Your task to perform on an android device: show emergency info Image 0: 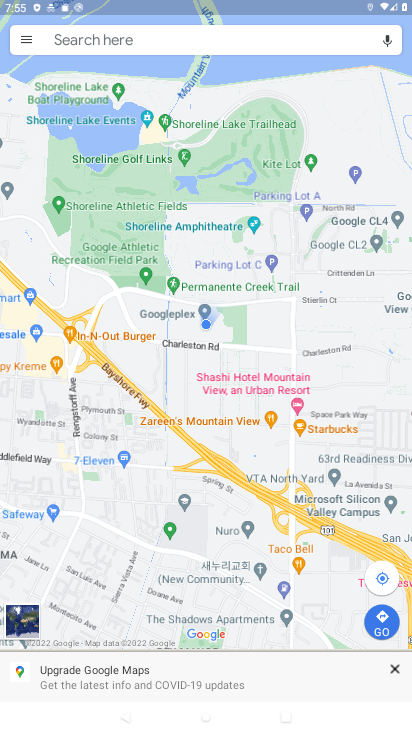
Step 0: press back button
Your task to perform on an android device: show emergency info Image 1: 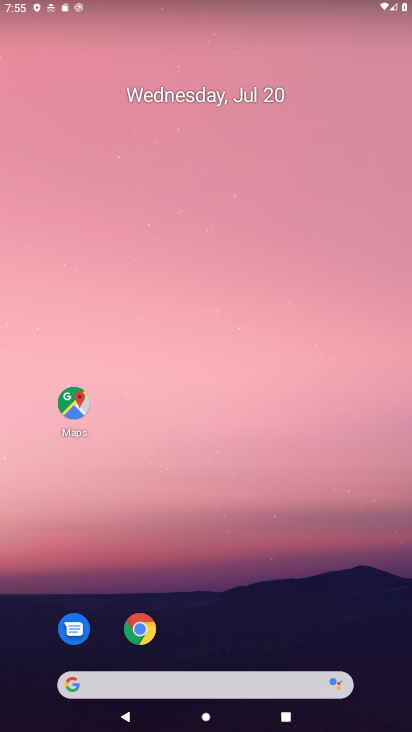
Step 1: drag from (243, 524) to (184, 72)
Your task to perform on an android device: show emergency info Image 2: 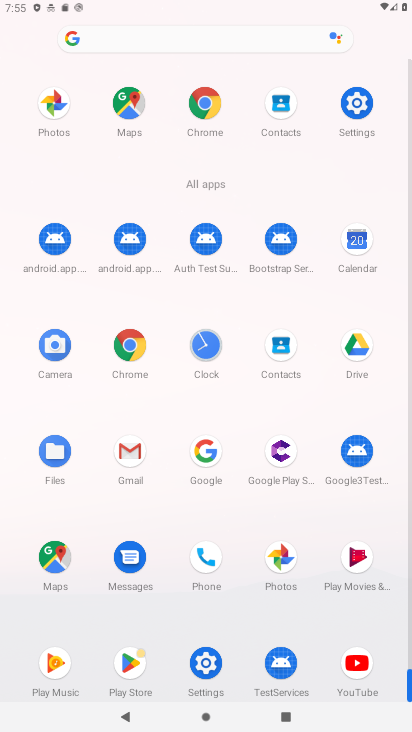
Step 2: click (362, 109)
Your task to perform on an android device: show emergency info Image 3: 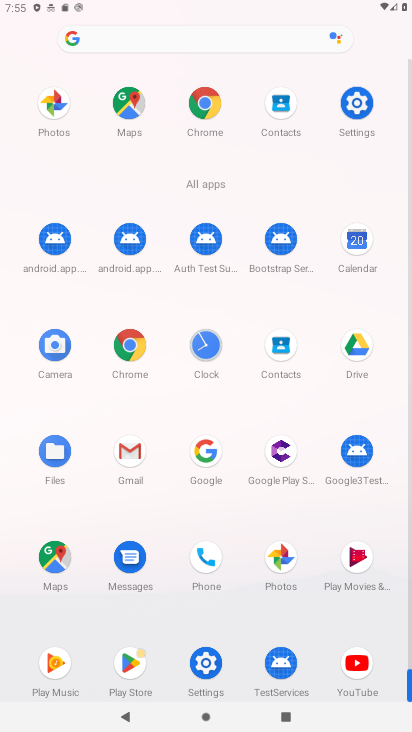
Step 3: click (364, 117)
Your task to perform on an android device: show emergency info Image 4: 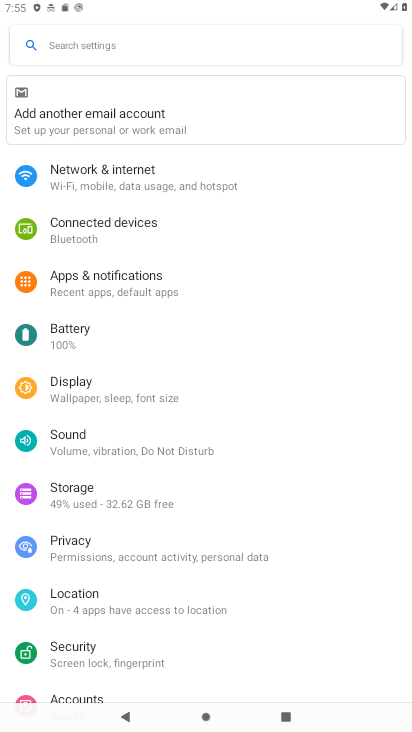
Step 4: drag from (143, 541) to (173, 325)
Your task to perform on an android device: show emergency info Image 5: 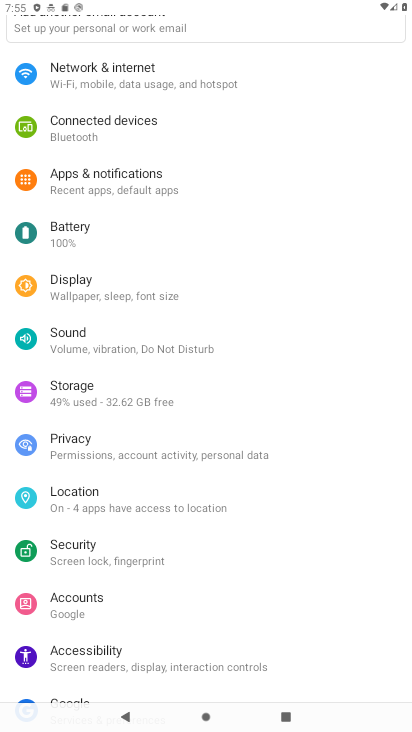
Step 5: drag from (174, 649) to (194, 213)
Your task to perform on an android device: show emergency info Image 6: 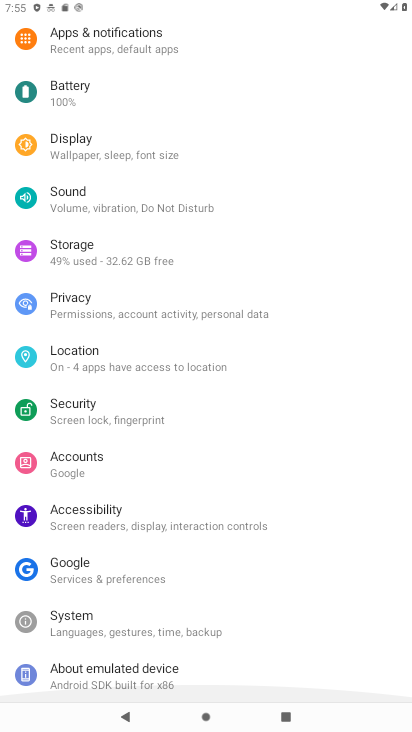
Step 6: drag from (149, 443) to (186, 20)
Your task to perform on an android device: show emergency info Image 7: 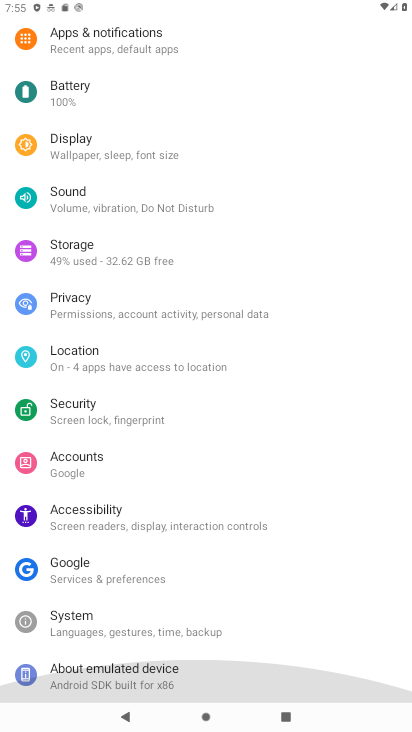
Step 7: drag from (192, 436) to (192, 138)
Your task to perform on an android device: show emergency info Image 8: 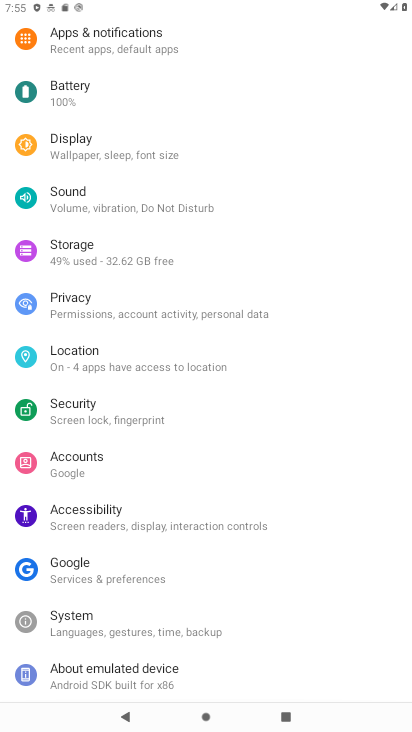
Step 8: click (77, 670)
Your task to perform on an android device: show emergency info Image 9: 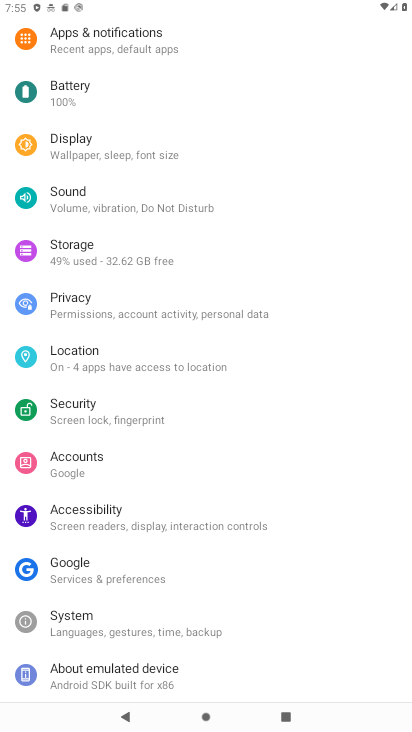
Step 9: click (77, 670)
Your task to perform on an android device: show emergency info Image 10: 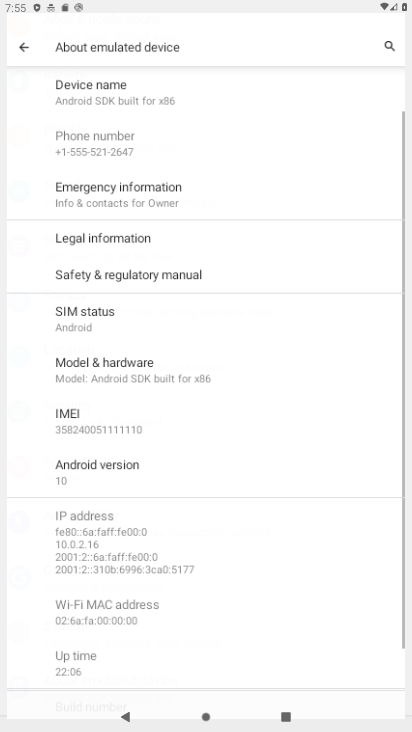
Step 10: click (81, 670)
Your task to perform on an android device: show emergency info Image 11: 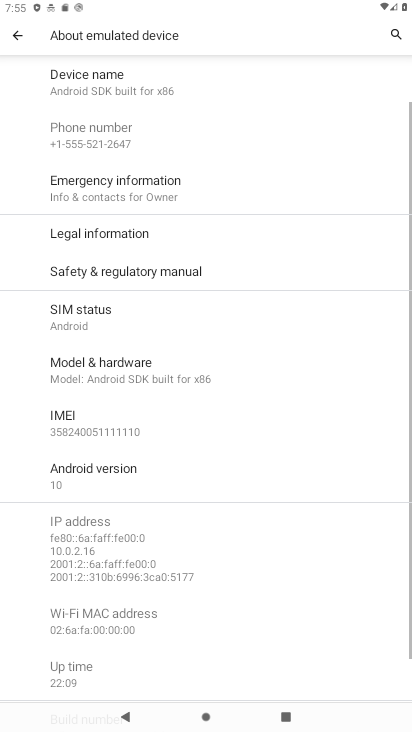
Step 11: click (90, 194)
Your task to perform on an android device: show emergency info Image 12: 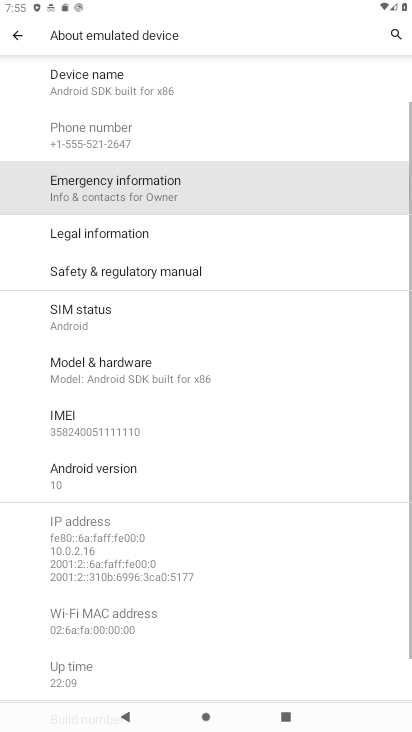
Step 12: click (95, 192)
Your task to perform on an android device: show emergency info Image 13: 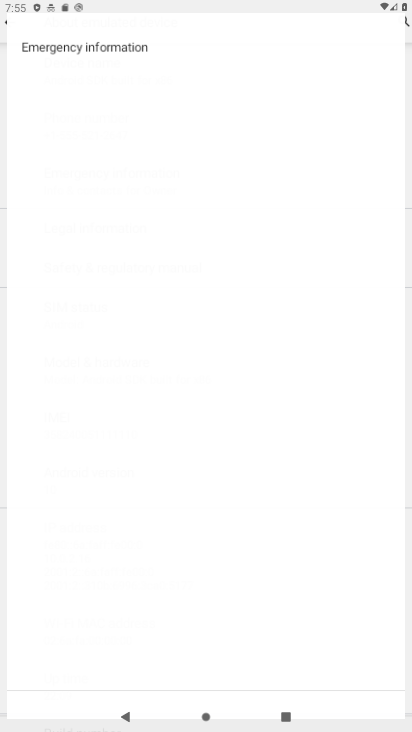
Step 13: click (96, 193)
Your task to perform on an android device: show emergency info Image 14: 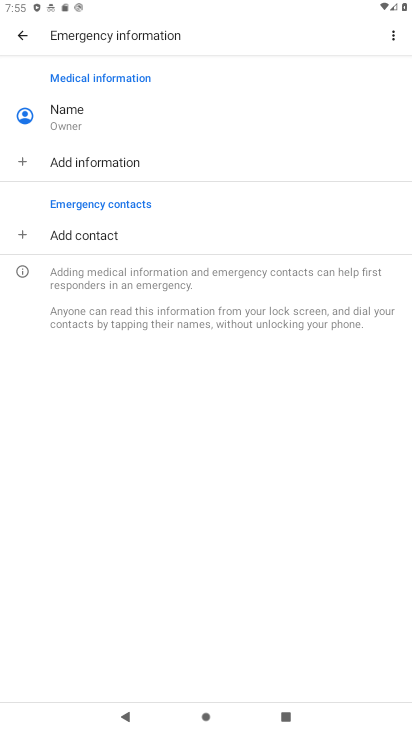
Step 14: task complete